Your task to perform on an android device: turn on the 12-hour format for clock Image 0: 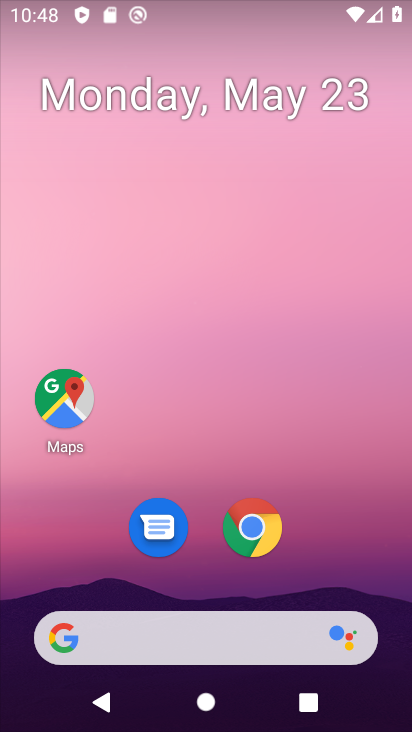
Step 0: drag from (231, 584) to (374, 10)
Your task to perform on an android device: turn on the 12-hour format for clock Image 1: 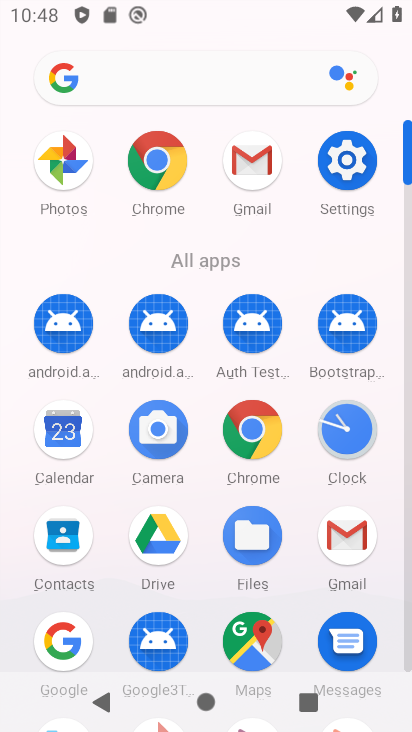
Step 1: drag from (226, 617) to (225, 192)
Your task to perform on an android device: turn on the 12-hour format for clock Image 2: 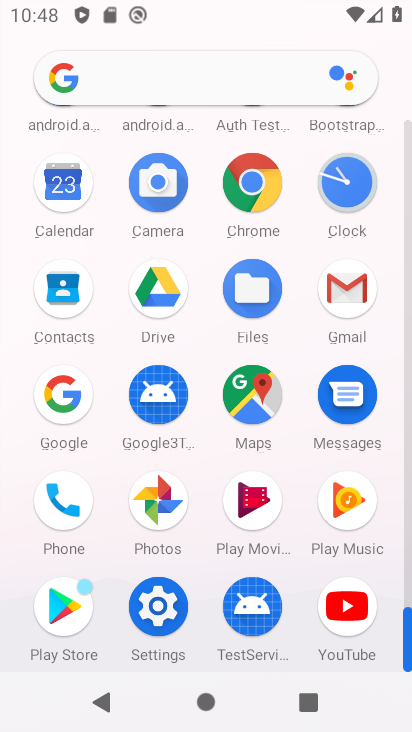
Step 2: click (157, 607)
Your task to perform on an android device: turn on the 12-hour format for clock Image 3: 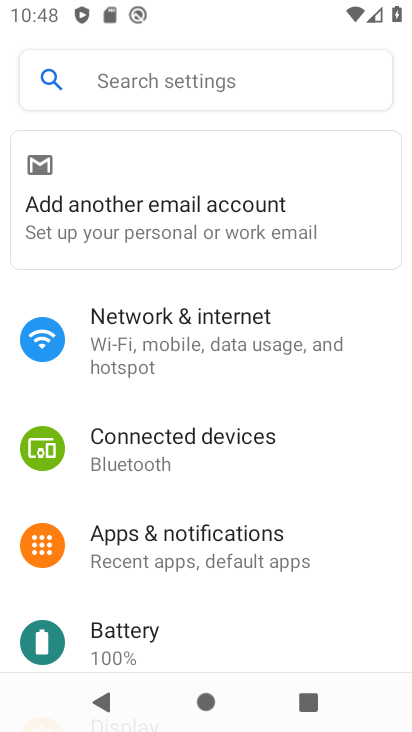
Step 3: drag from (219, 580) to (277, 104)
Your task to perform on an android device: turn on the 12-hour format for clock Image 4: 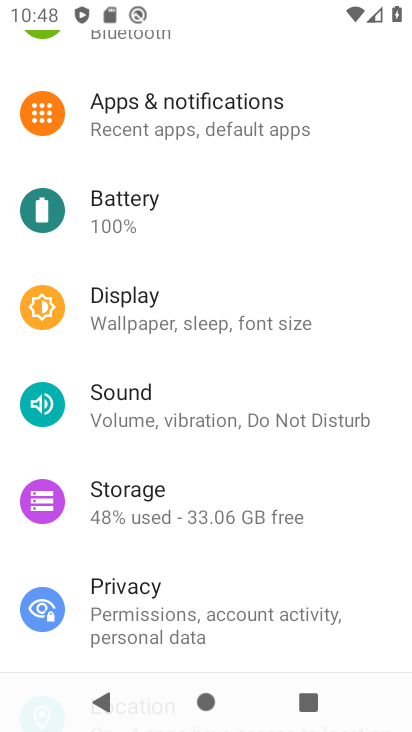
Step 4: drag from (200, 613) to (270, 27)
Your task to perform on an android device: turn on the 12-hour format for clock Image 5: 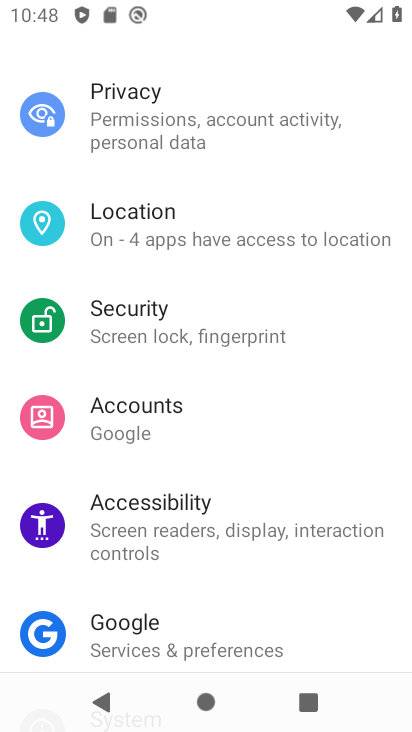
Step 5: drag from (164, 571) to (246, 10)
Your task to perform on an android device: turn on the 12-hour format for clock Image 6: 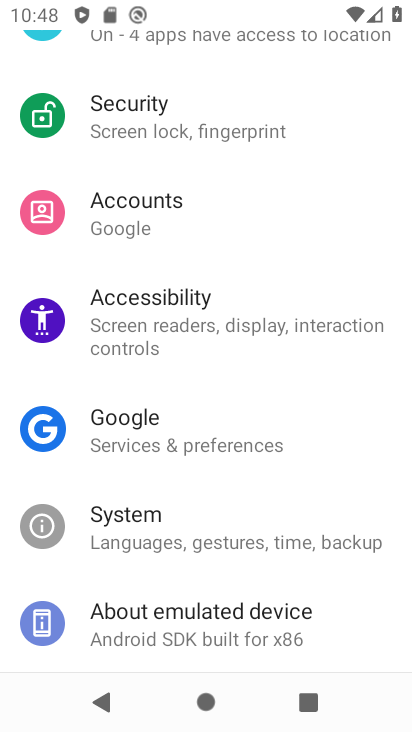
Step 6: drag from (186, 535) to (198, 339)
Your task to perform on an android device: turn on the 12-hour format for clock Image 7: 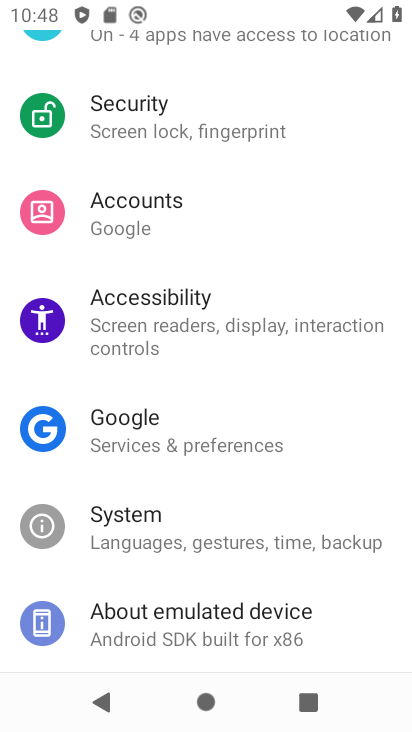
Step 7: click (155, 544)
Your task to perform on an android device: turn on the 12-hour format for clock Image 8: 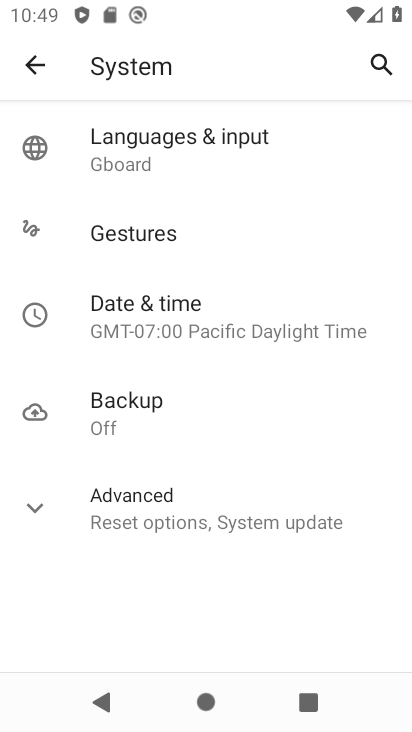
Step 8: click (194, 336)
Your task to perform on an android device: turn on the 12-hour format for clock Image 9: 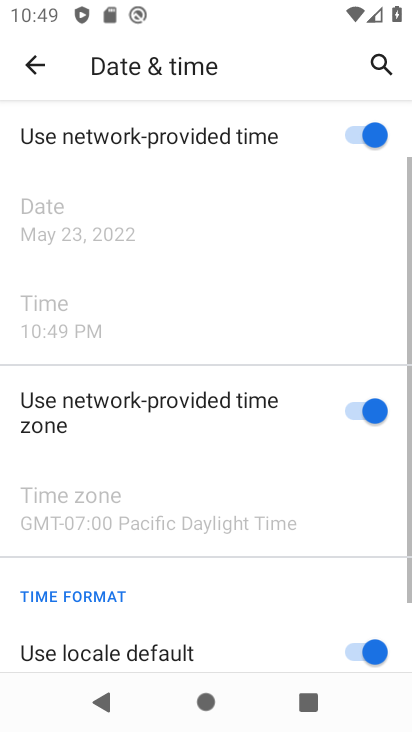
Step 9: task complete